Your task to perform on an android device: Search for logitech g910 on amazon, select the first entry, and add it to the cart. Image 0: 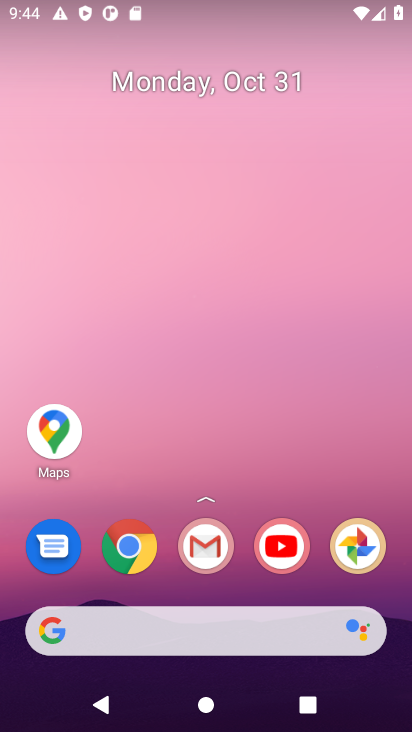
Step 0: click (140, 552)
Your task to perform on an android device: Search for logitech g910 on amazon, select the first entry, and add it to the cart. Image 1: 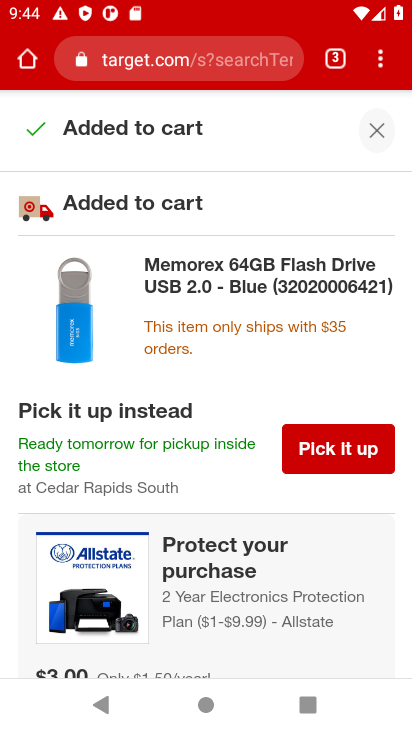
Step 1: click (141, 57)
Your task to perform on an android device: Search for logitech g910 on amazon, select the first entry, and add it to the cart. Image 2: 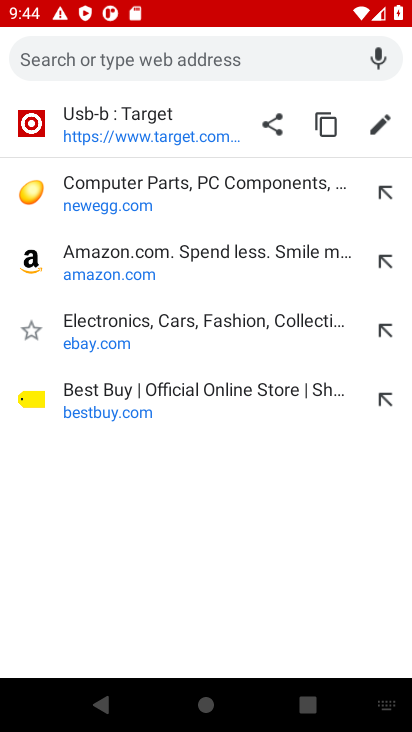
Step 2: press enter
Your task to perform on an android device: Search for logitech g910 on amazon, select the first entry, and add it to the cart. Image 3: 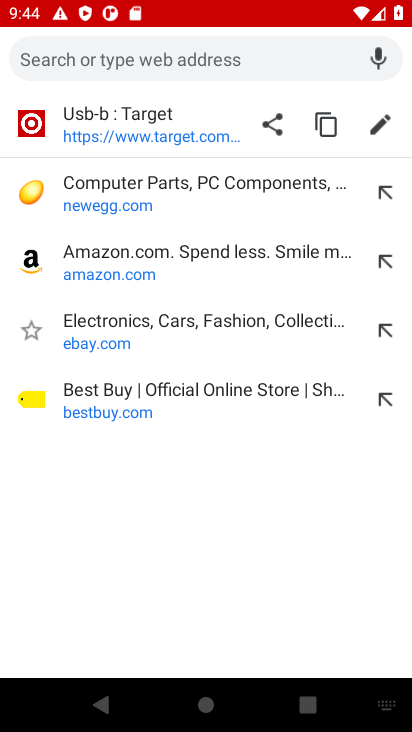
Step 3: type "logitech g910 on amazon"
Your task to perform on an android device: Search for logitech g910 on amazon, select the first entry, and add it to the cart. Image 4: 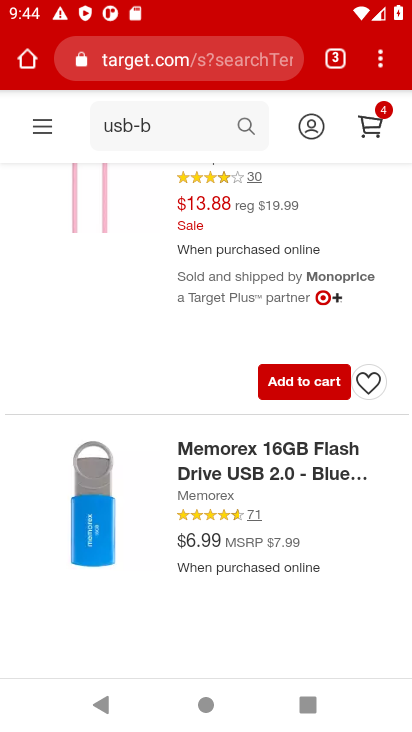
Step 4: click (172, 67)
Your task to perform on an android device: Search for logitech g910 on amazon, select the first entry, and add it to the cart. Image 5: 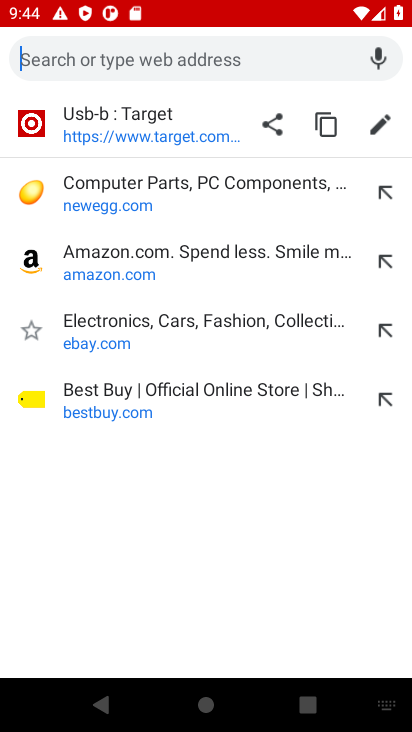
Step 5: type "logitech g910 on amazon"
Your task to perform on an android device: Search for logitech g910 on amazon, select the first entry, and add it to the cart. Image 6: 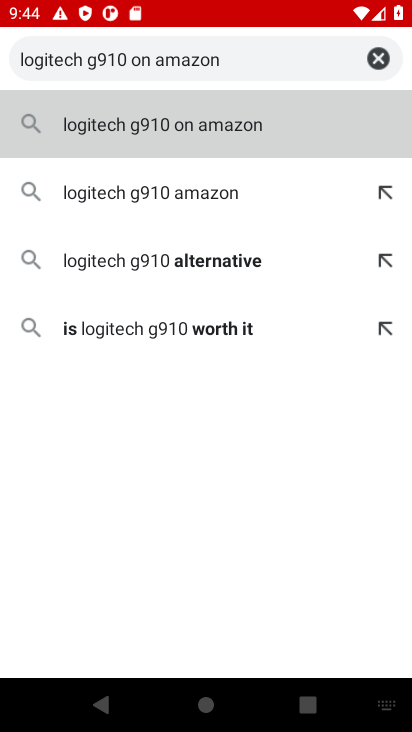
Step 6: press enter
Your task to perform on an android device: Search for logitech g910 on amazon, select the first entry, and add it to the cart. Image 7: 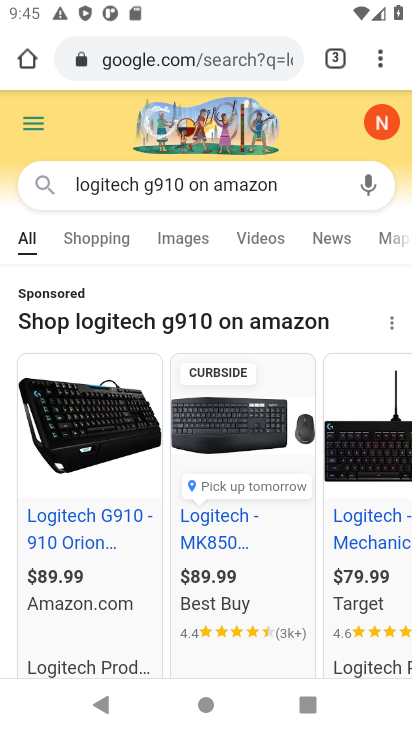
Step 7: click (76, 522)
Your task to perform on an android device: Search for logitech g910 on amazon, select the first entry, and add it to the cart. Image 8: 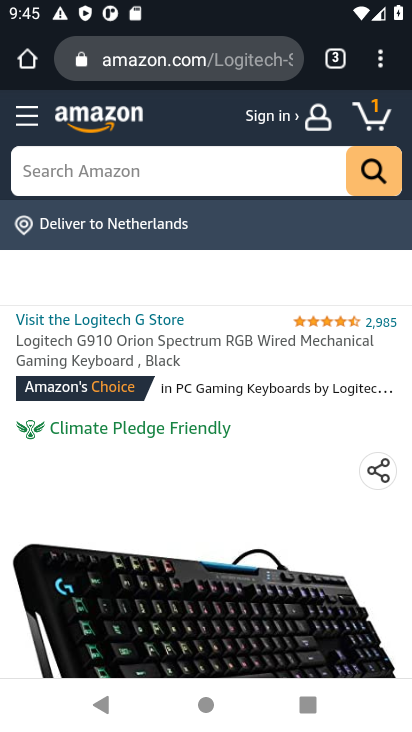
Step 8: drag from (162, 502) to (129, 227)
Your task to perform on an android device: Search for logitech g910 on amazon, select the first entry, and add it to the cart. Image 9: 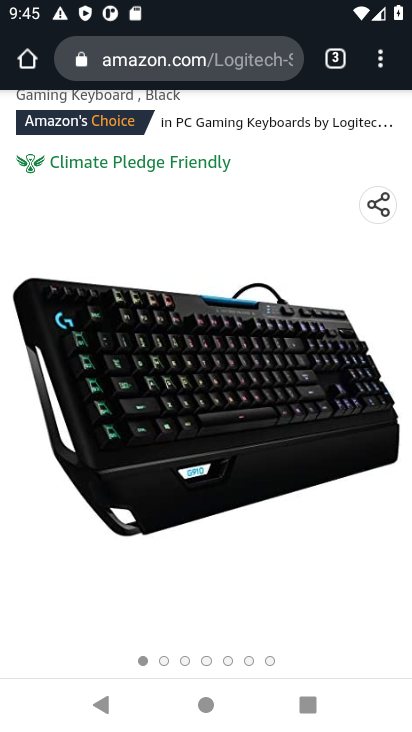
Step 9: drag from (140, 560) to (157, 205)
Your task to perform on an android device: Search for logitech g910 on amazon, select the first entry, and add it to the cart. Image 10: 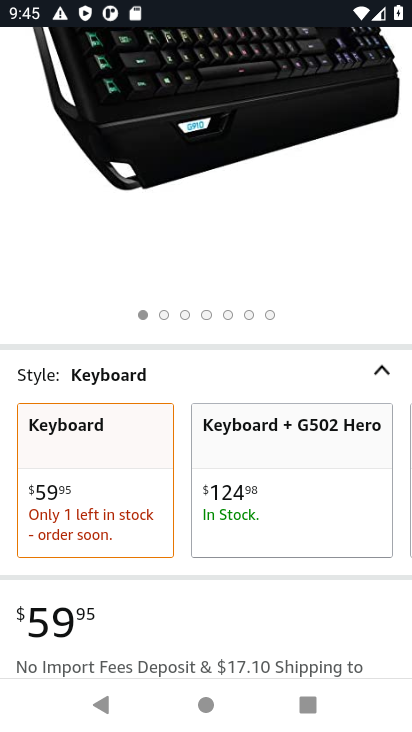
Step 10: drag from (166, 534) to (196, 383)
Your task to perform on an android device: Search for logitech g910 on amazon, select the first entry, and add it to the cart. Image 11: 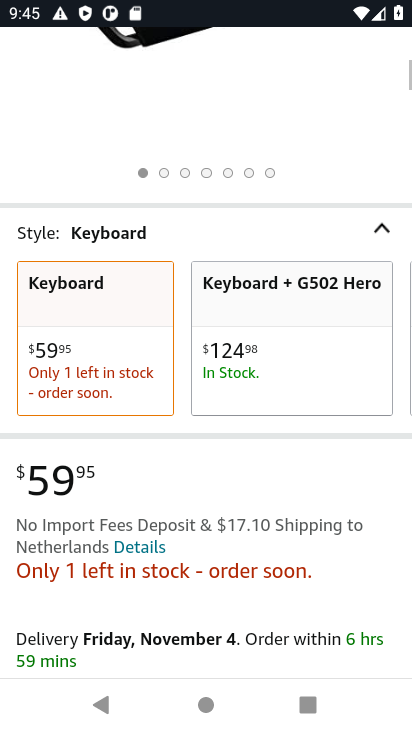
Step 11: drag from (186, 568) to (180, 201)
Your task to perform on an android device: Search for logitech g910 on amazon, select the first entry, and add it to the cart. Image 12: 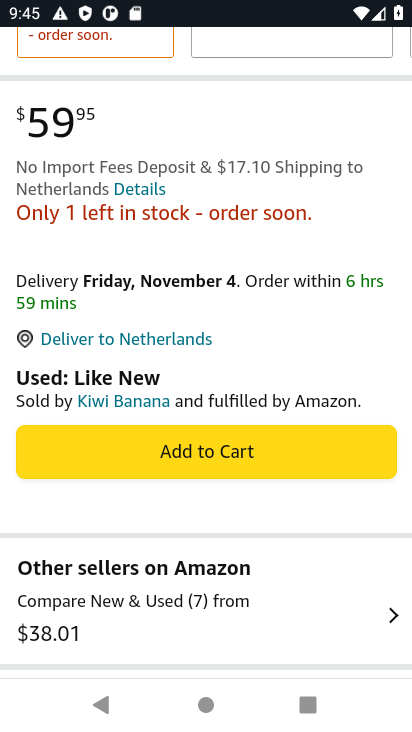
Step 12: click (175, 534)
Your task to perform on an android device: Search for logitech g910 on amazon, select the first entry, and add it to the cart. Image 13: 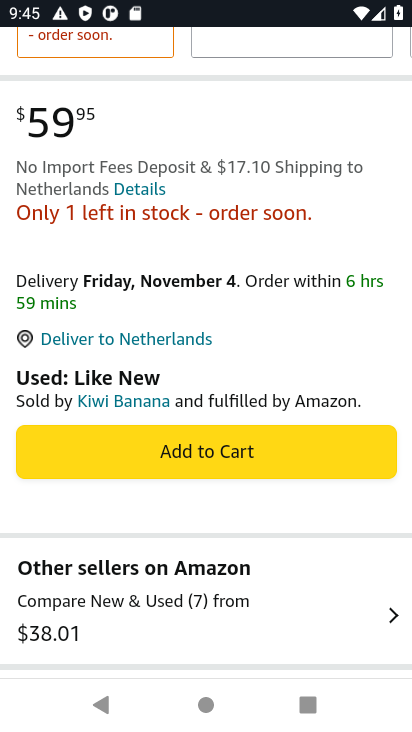
Step 13: click (192, 455)
Your task to perform on an android device: Search for logitech g910 on amazon, select the first entry, and add it to the cart. Image 14: 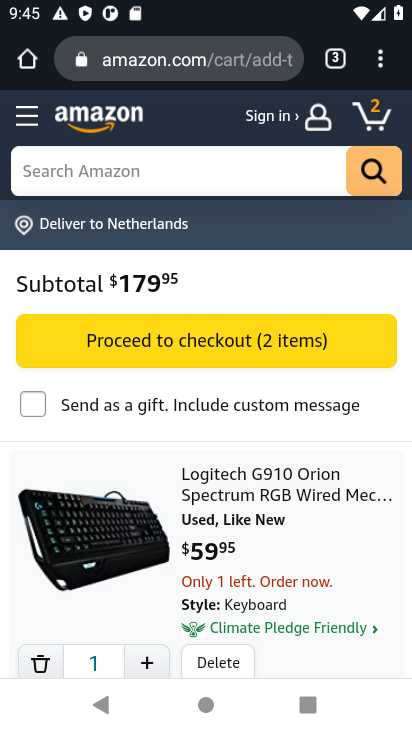
Step 14: task complete